Your task to perform on an android device: Show me the alarms in the clock app Image 0: 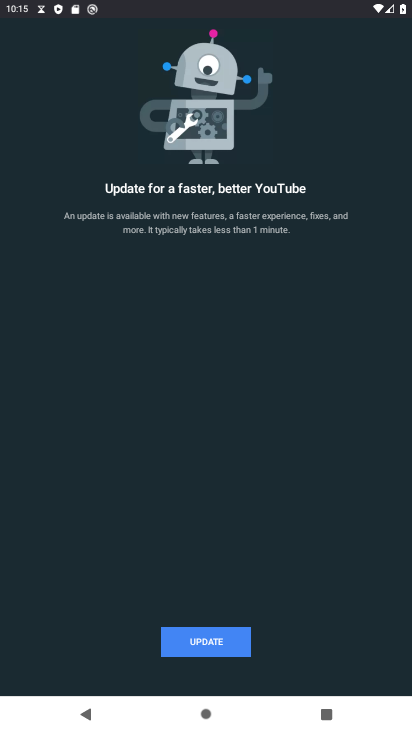
Step 0: press home button
Your task to perform on an android device: Show me the alarms in the clock app Image 1: 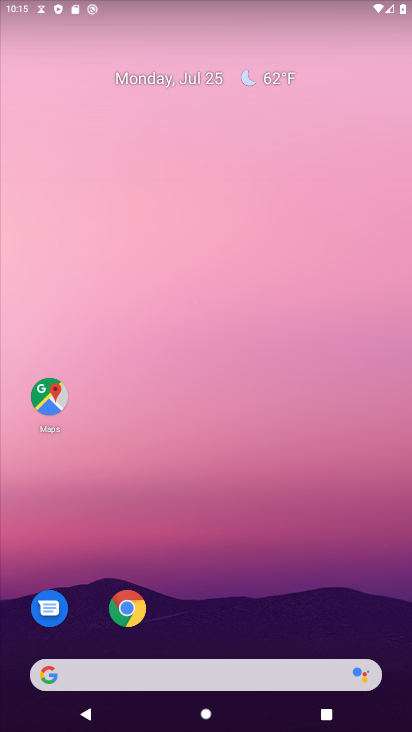
Step 1: drag from (214, 673) to (204, 227)
Your task to perform on an android device: Show me the alarms in the clock app Image 2: 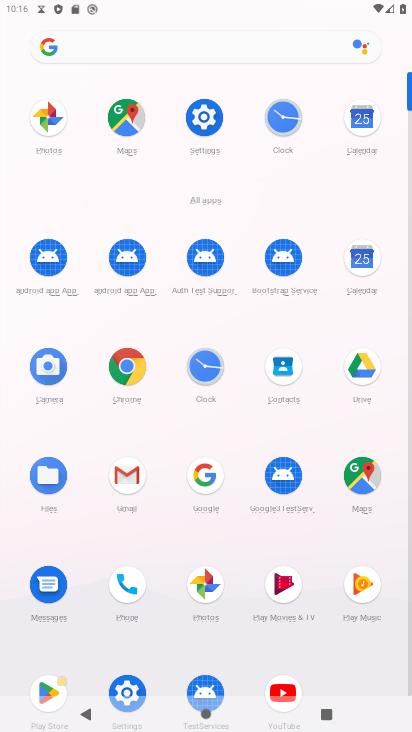
Step 2: click (283, 119)
Your task to perform on an android device: Show me the alarms in the clock app Image 3: 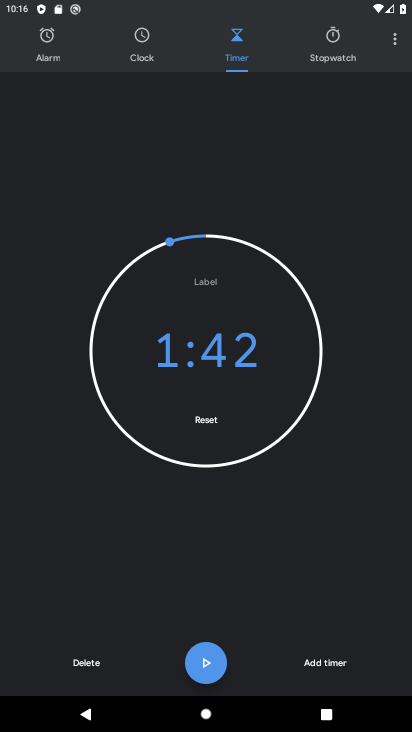
Step 3: click (47, 39)
Your task to perform on an android device: Show me the alarms in the clock app Image 4: 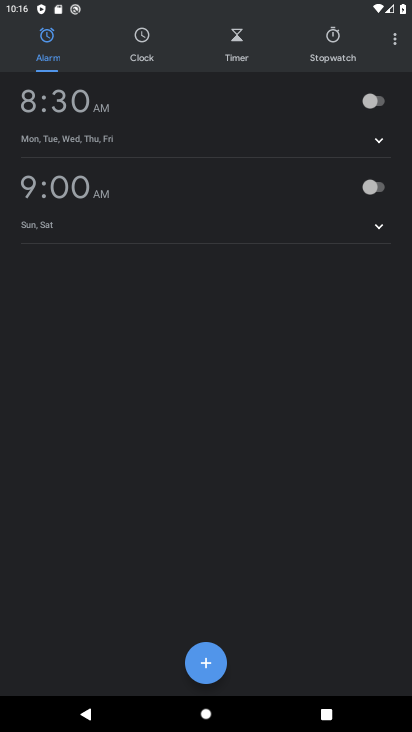
Step 4: click (206, 662)
Your task to perform on an android device: Show me the alarms in the clock app Image 5: 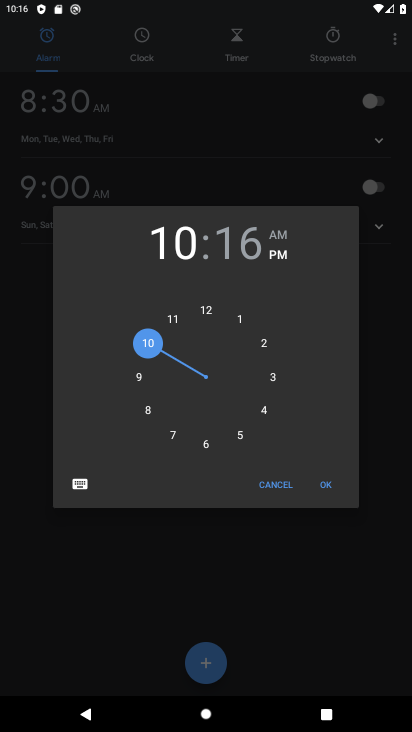
Step 5: click (207, 444)
Your task to perform on an android device: Show me the alarms in the clock app Image 6: 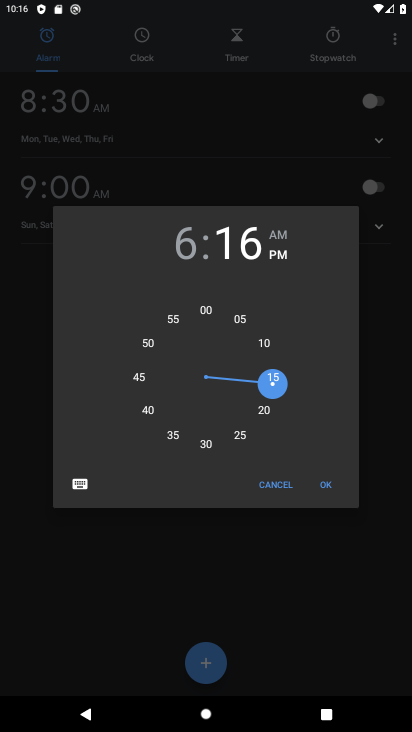
Step 6: click (211, 318)
Your task to perform on an android device: Show me the alarms in the clock app Image 7: 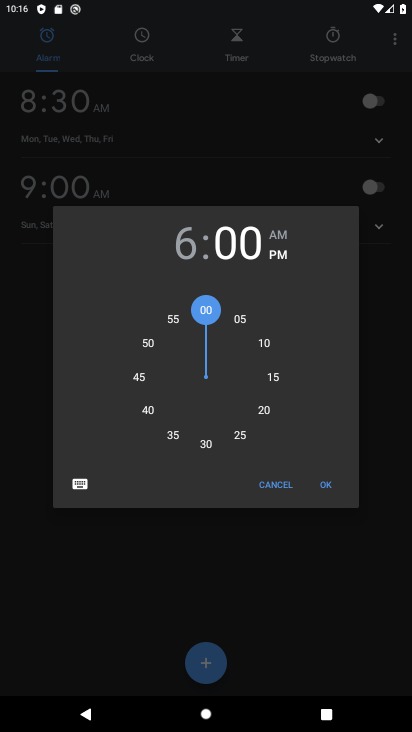
Step 7: click (322, 486)
Your task to perform on an android device: Show me the alarms in the clock app Image 8: 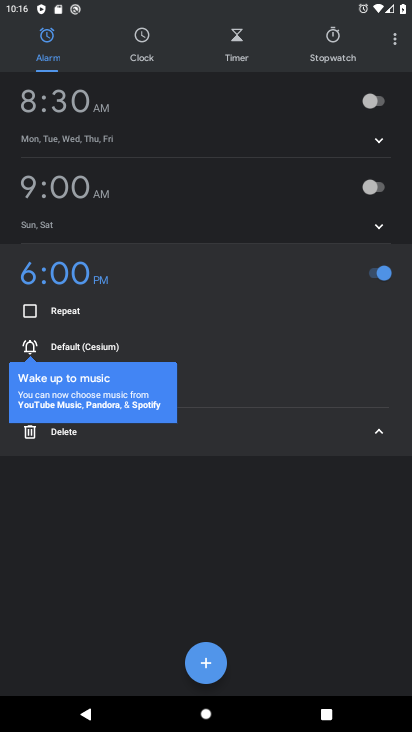
Step 8: click (376, 436)
Your task to perform on an android device: Show me the alarms in the clock app Image 9: 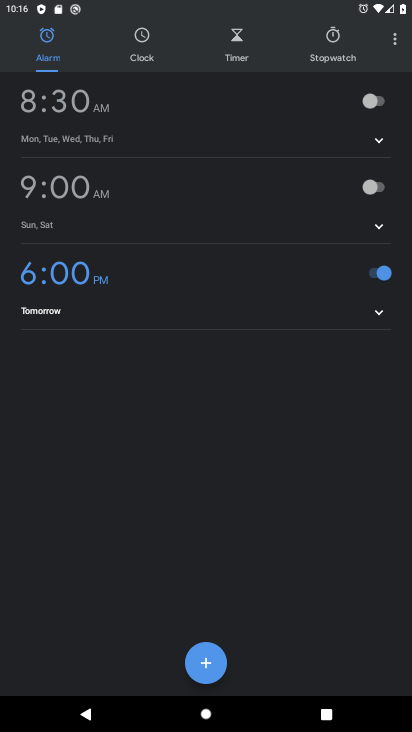
Step 9: task complete